Your task to perform on an android device: delete location history Image 0: 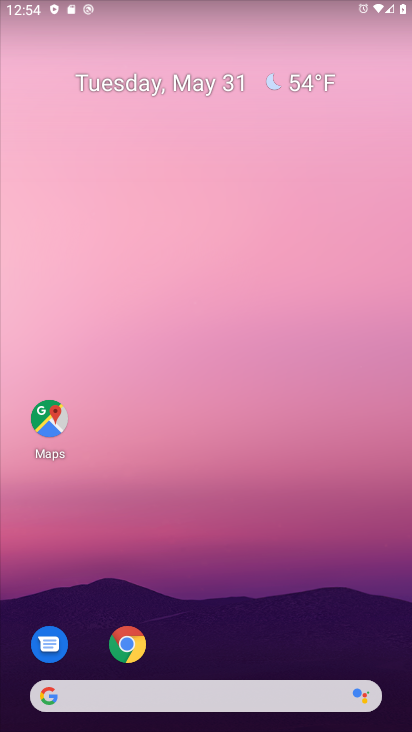
Step 0: press home button
Your task to perform on an android device: delete location history Image 1: 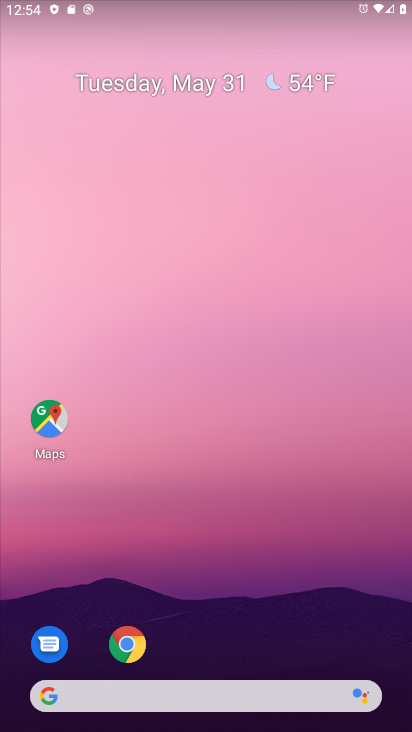
Step 1: drag from (316, 628) to (326, 260)
Your task to perform on an android device: delete location history Image 2: 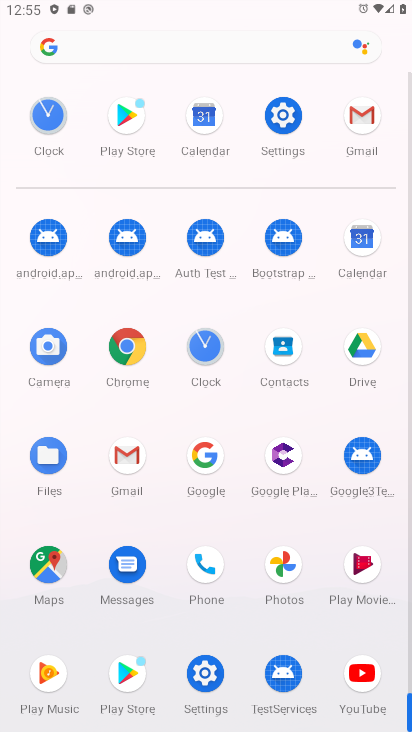
Step 2: click (43, 565)
Your task to perform on an android device: delete location history Image 3: 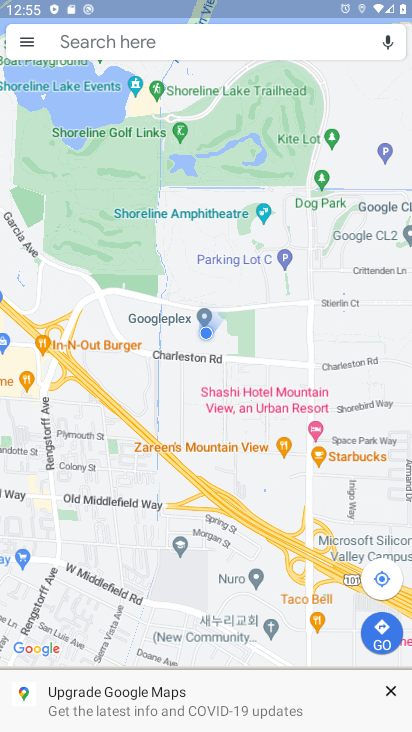
Step 3: click (25, 41)
Your task to perform on an android device: delete location history Image 4: 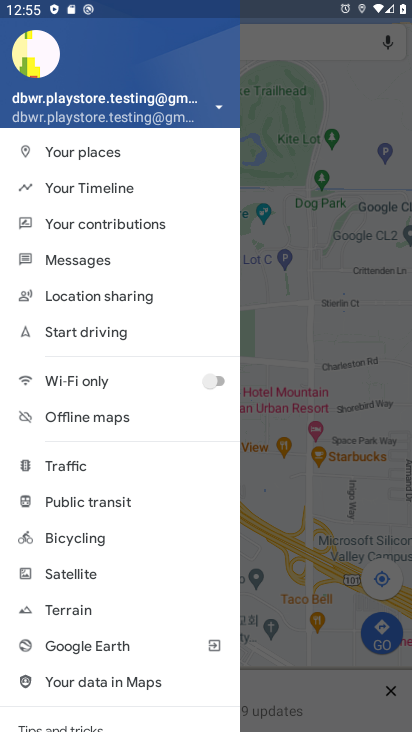
Step 4: click (90, 191)
Your task to perform on an android device: delete location history Image 5: 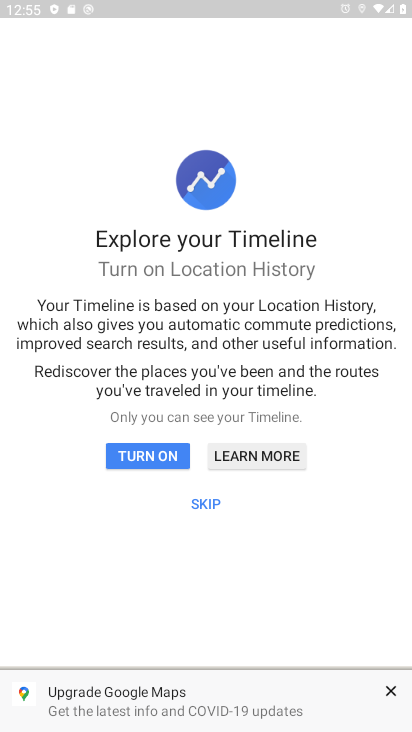
Step 5: click (162, 451)
Your task to perform on an android device: delete location history Image 6: 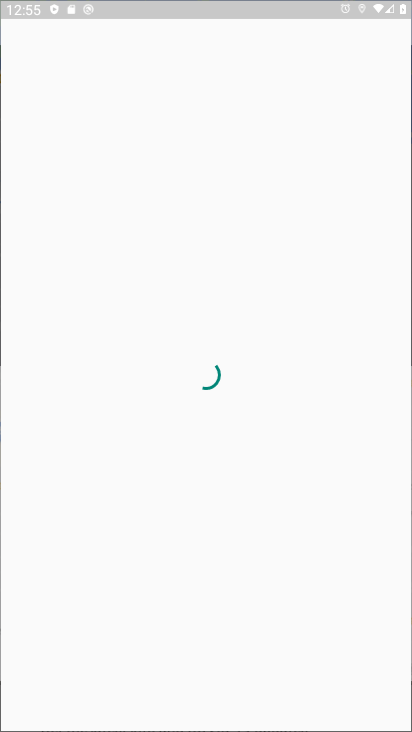
Step 6: click (398, 36)
Your task to perform on an android device: delete location history Image 7: 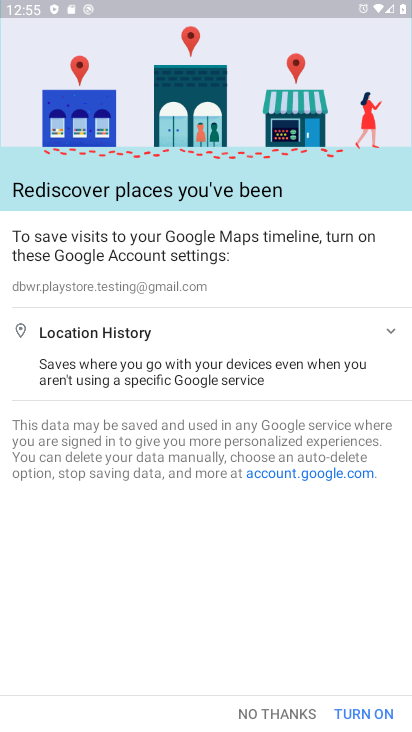
Step 7: click (276, 709)
Your task to perform on an android device: delete location history Image 8: 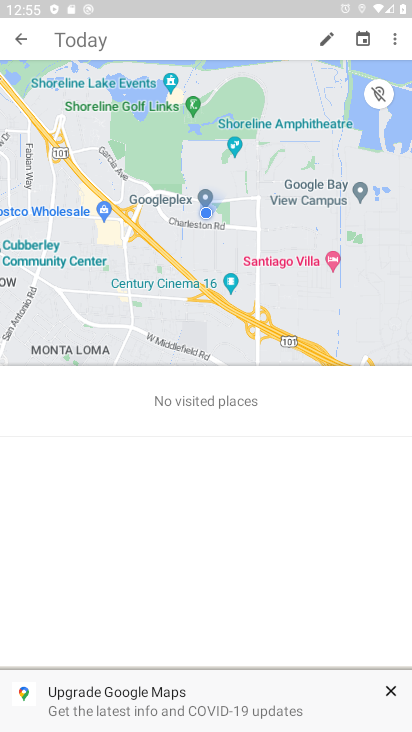
Step 8: click (396, 35)
Your task to perform on an android device: delete location history Image 9: 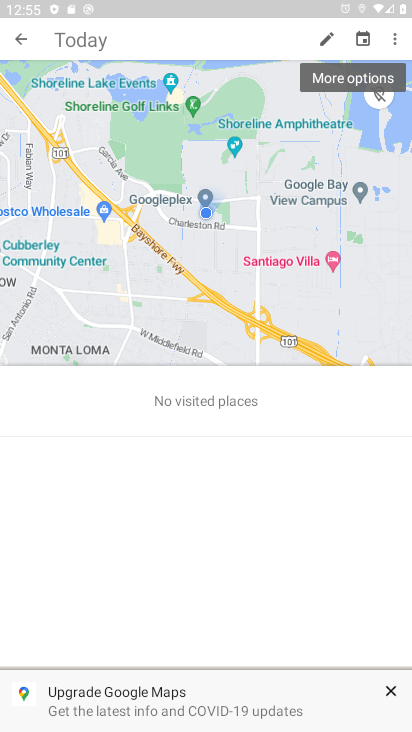
Step 9: click (393, 46)
Your task to perform on an android device: delete location history Image 10: 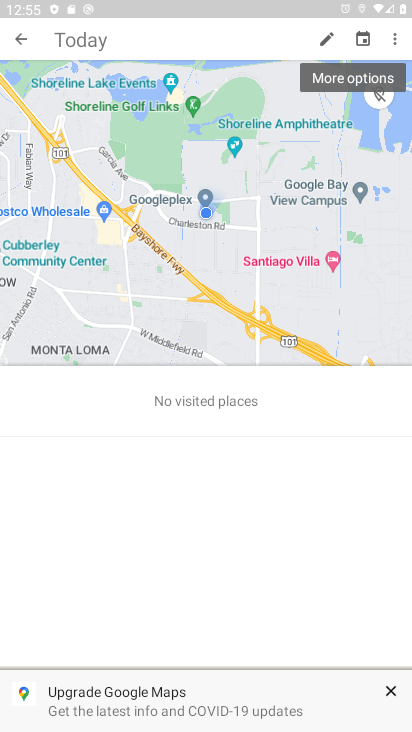
Step 10: click (394, 46)
Your task to perform on an android device: delete location history Image 11: 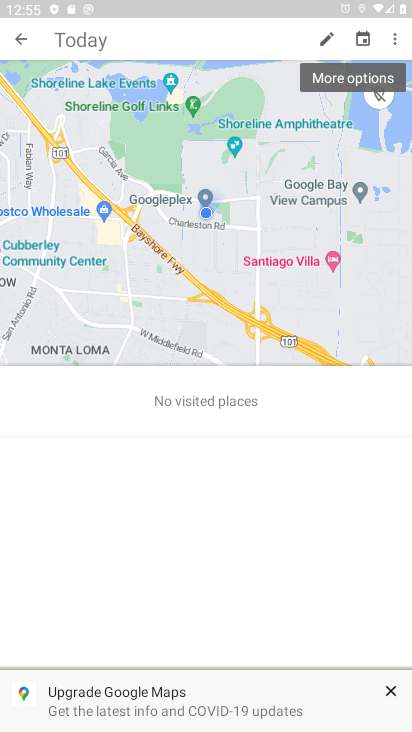
Step 11: click (373, 74)
Your task to perform on an android device: delete location history Image 12: 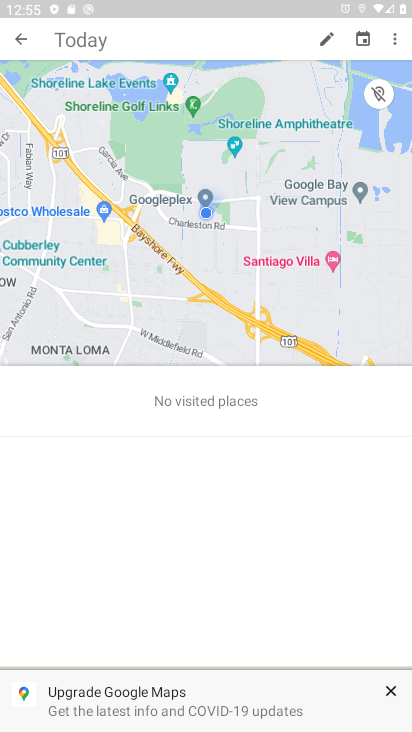
Step 12: click (404, 31)
Your task to perform on an android device: delete location history Image 13: 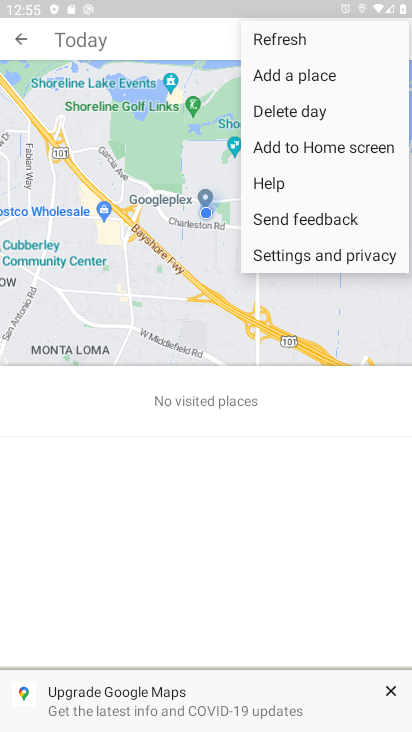
Step 13: click (298, 259)
Your task to perform on an android device: delete location history Image 14: 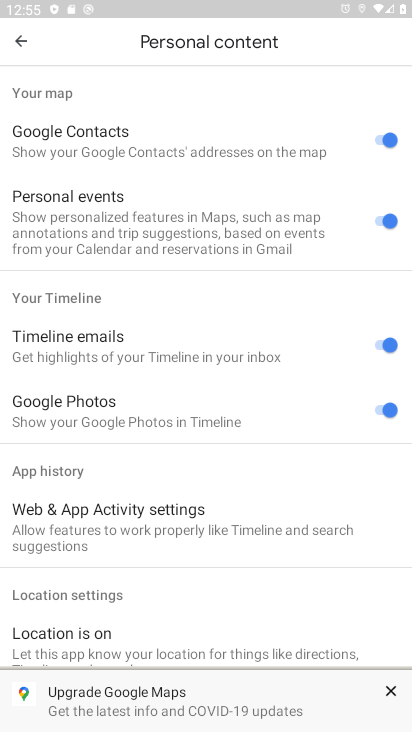
Step 14: drag from (228, 610) to (265, 226)
Your task to perform on an android device: delete location history Image 15: 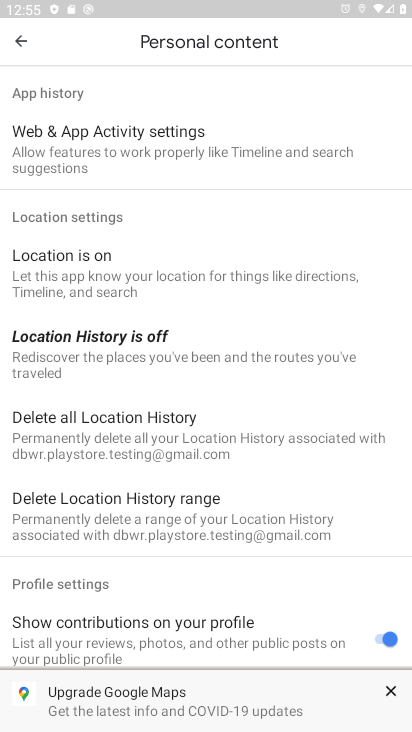
Step 15: click (137, 411)
Your task to perform on an android device: delete location history Image 16: 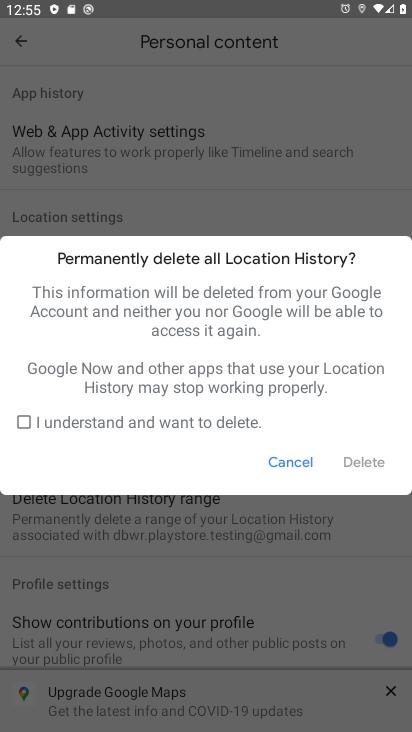
Step 16: click (33, 425)
Your task to perform on an android device: delete location history Image 17: 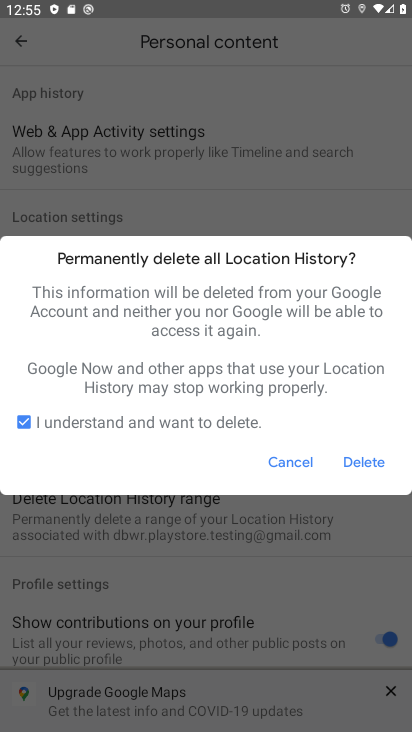
Step 17: click (380, 463)
Your task to perform on an android device: delete location history Image 18: 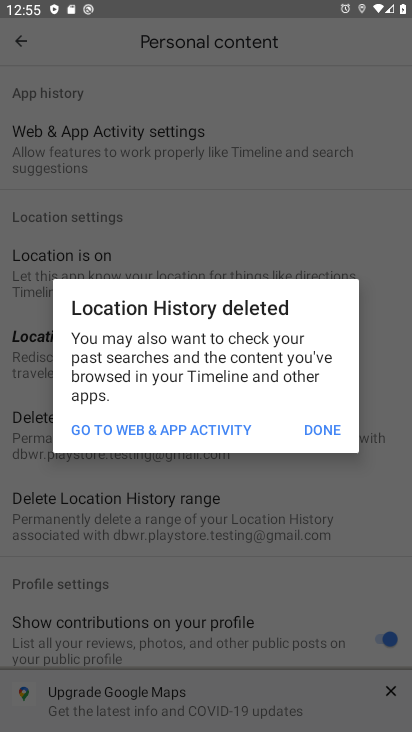
Step 18: click (322, 425)
Your task to perform on an android device: delete location history Image 19: 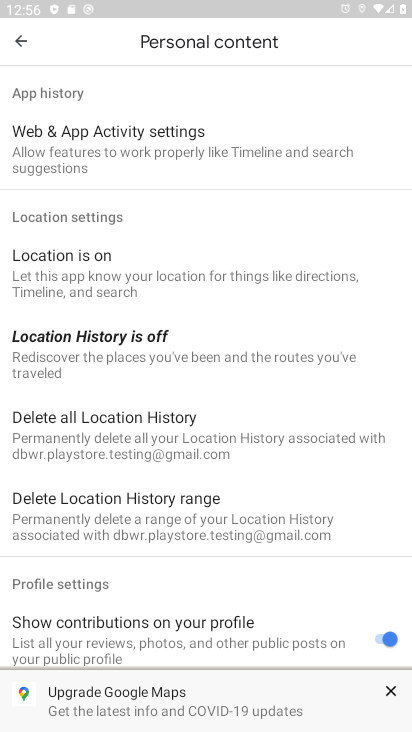
Step 19: task complete